Your task to perform on an android device: uninstall "Pinterest" Image 0: 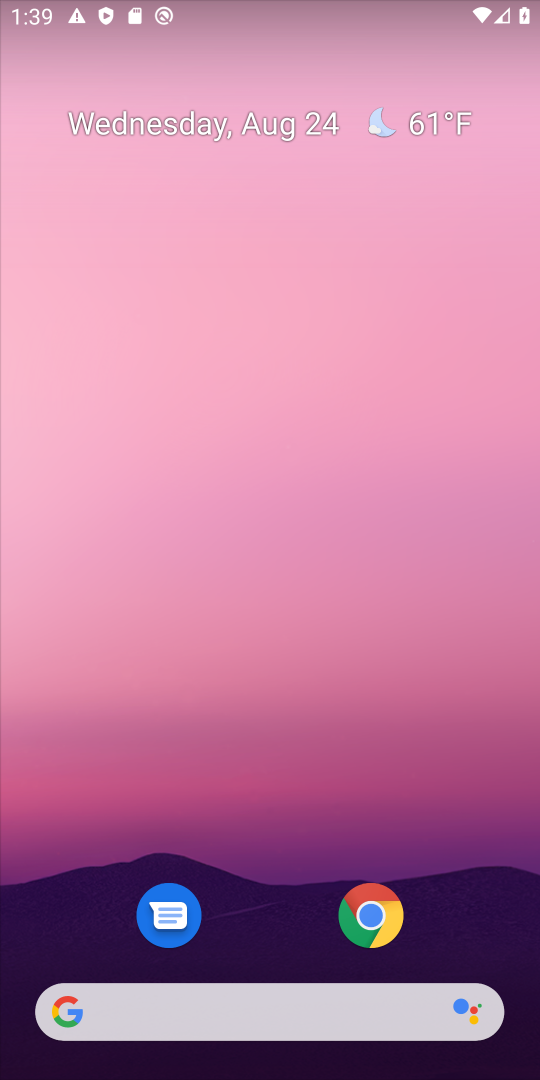
Step 0: drag from (294, 775) to (305, 185)
Your task to perform on an android device: uninstall "Pinterest" Image 1: 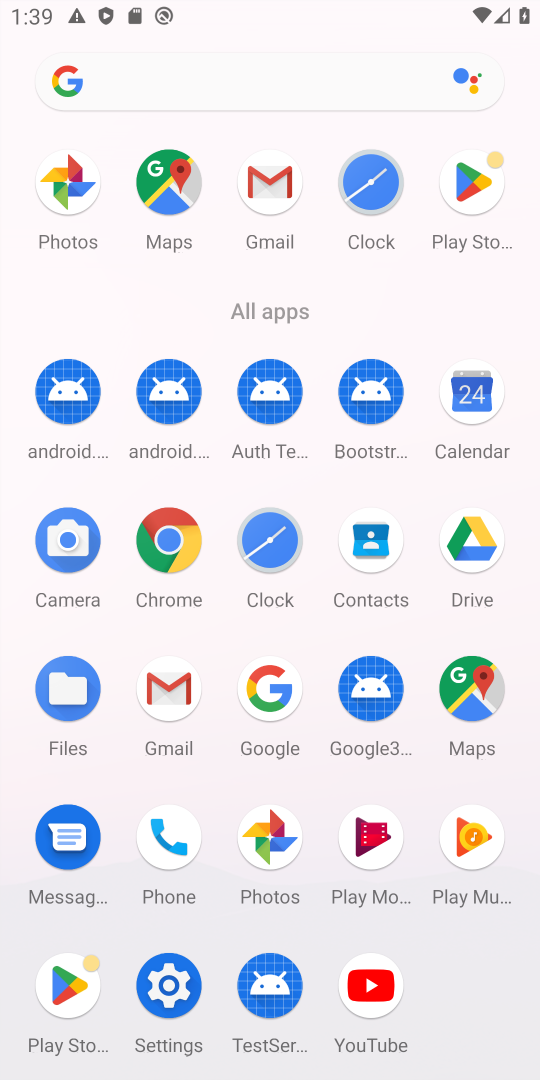
Step 1: click (454, 186)
Your task to perform on an android device: uninstall "Pinterest" Image 2: 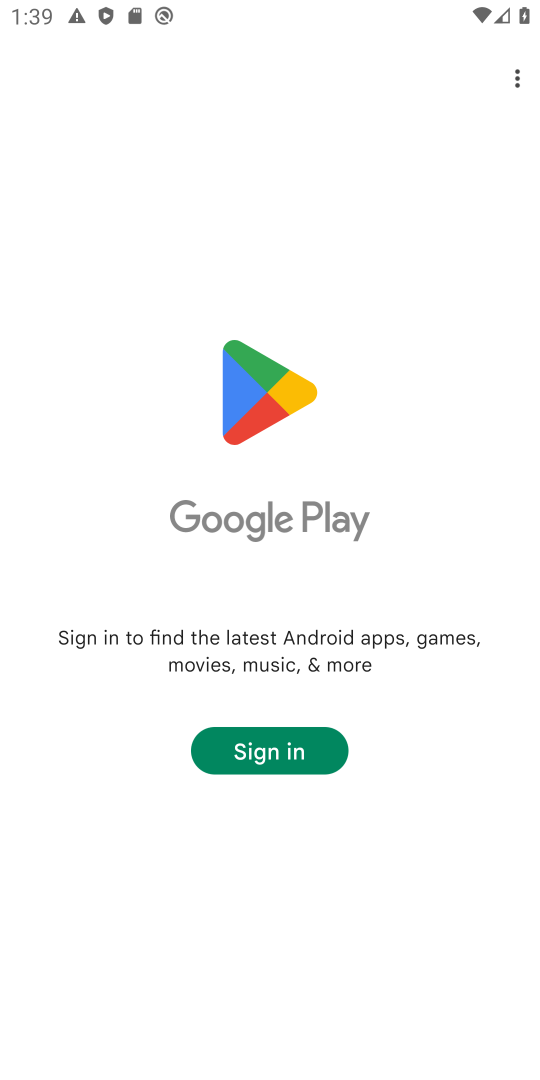
Step 2: task complete